Your task to perform on an android device: star an email in the gmail app Image 0: 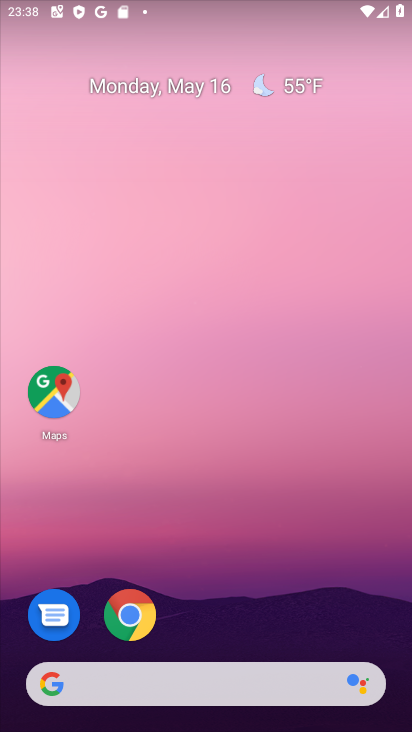
Step 0: drag from (215, 640) to (196, 118)
Your task to perform on an android device: star an email in the gmail app Image 1: 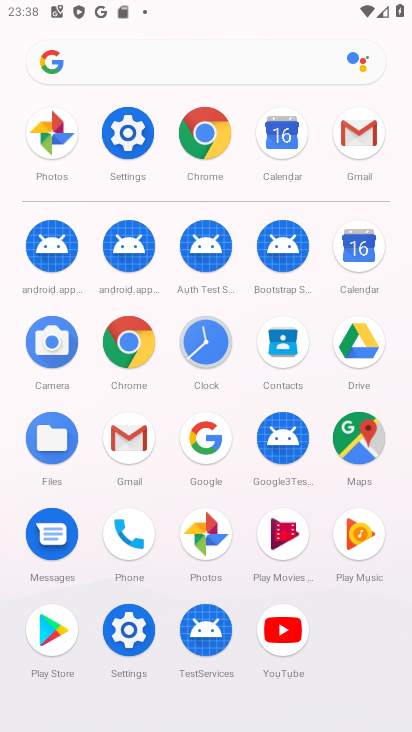
Step 1: click (135, 452)
Your task to perform on an android device: star an email in the gmail app Image 2: 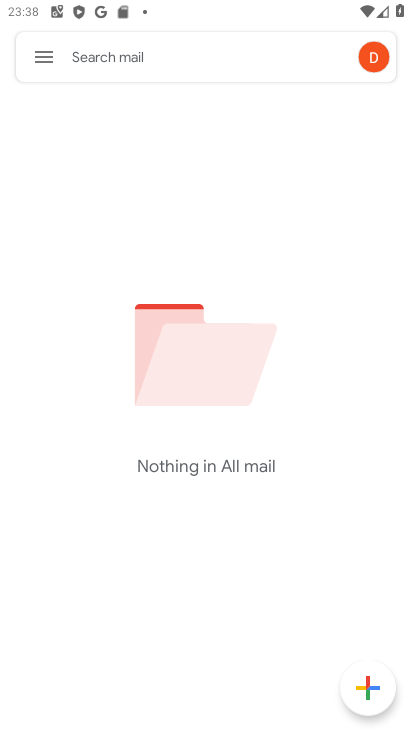
Step 2: click (34, 60)
Your task to perform on an android device: star an email in the gmail app Image 3: 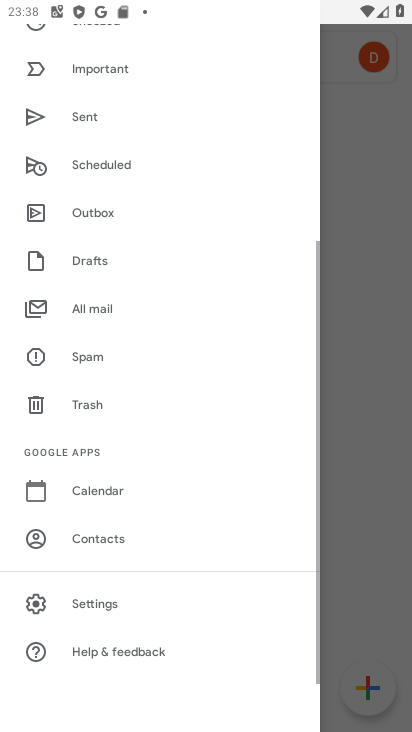
Step 3: task complete